Your task to perform on an android device: check out phone information Image 0: 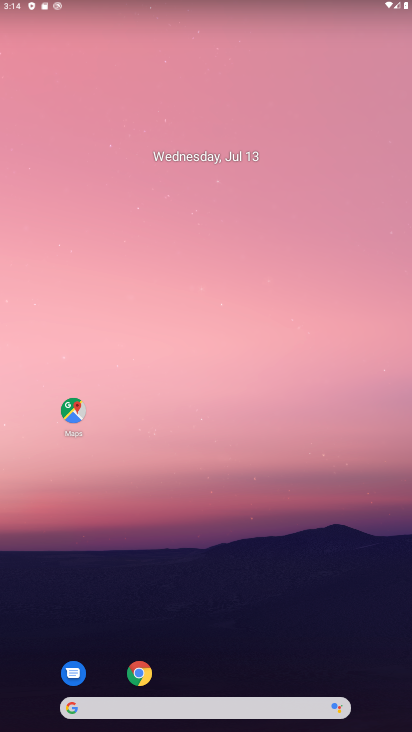
Step 0: drag from (274, 643) to (308, 234)
Your task to perform on an android device: check out phone information Image 1: 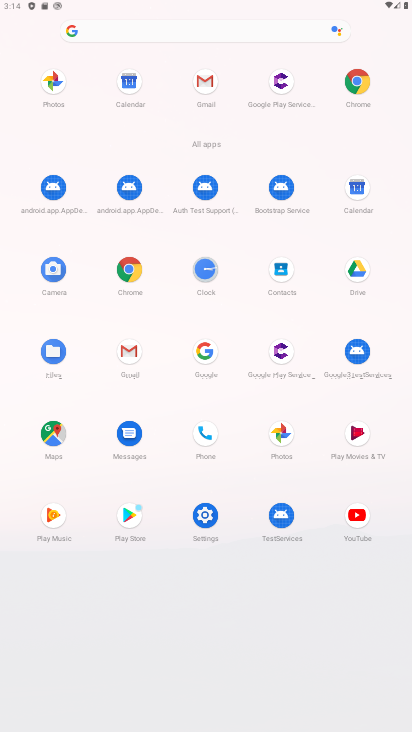
Step 1: click (204, 426)
Your task to perform on an android device: check out phone information Image 2: 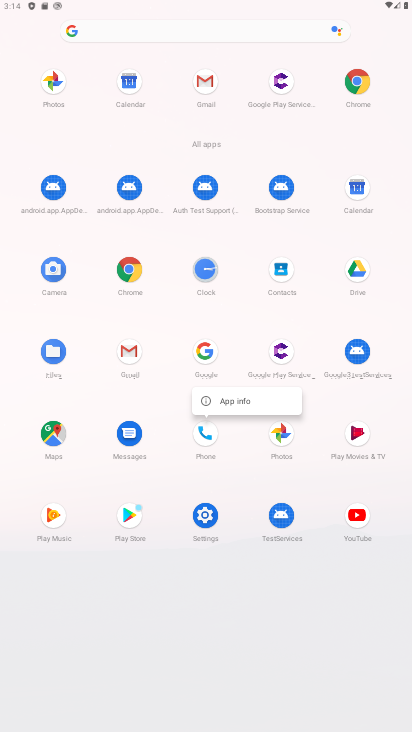
Step 2: click (228, 402)
Your task to perform on an android device: check out phone information Image 3: 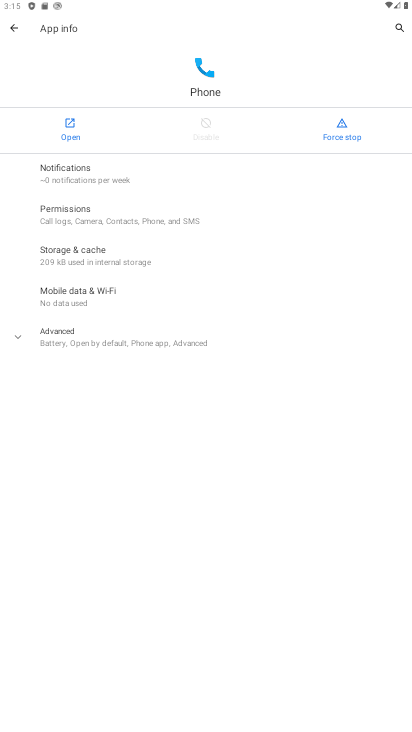
Step 3: task complete